Your task to perform on an android device: clear all cookies in the chrome app Image 0: 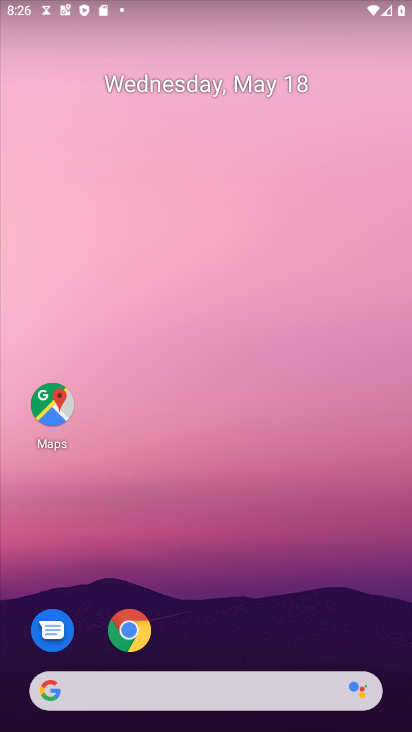
Step 0: click (135, 632)
Your task to perform on an android device: clear all cookies in the chrome app Image 1: 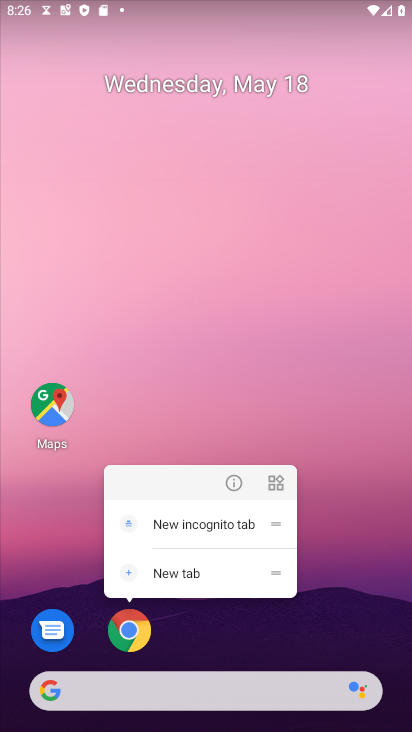
Step 1: click (145, 640)
Your task to perform on an android device: clear all cookies in the chrome app Image 2: 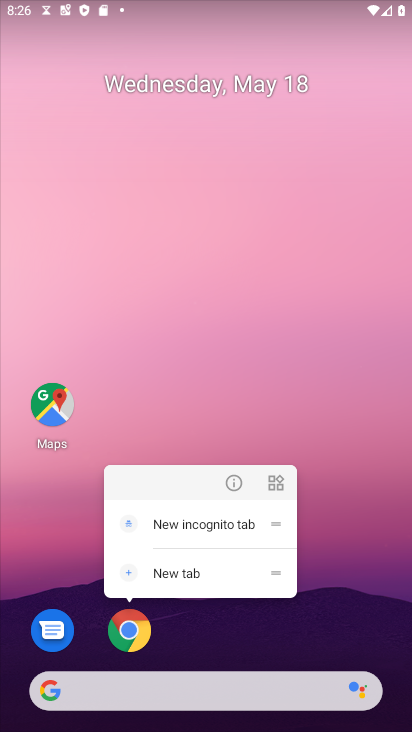
Step 2: click (133, 639)
Your task to perform on an android device: clear all cookies in the chrome app Image 3: 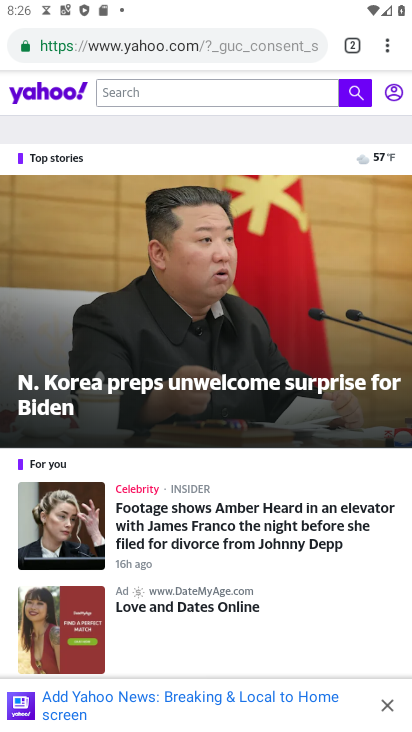
Step 3: drag from (387, 47) to (245, 547)
Your task to perform on an android device: clear all cookies in the chrome app Image 4: 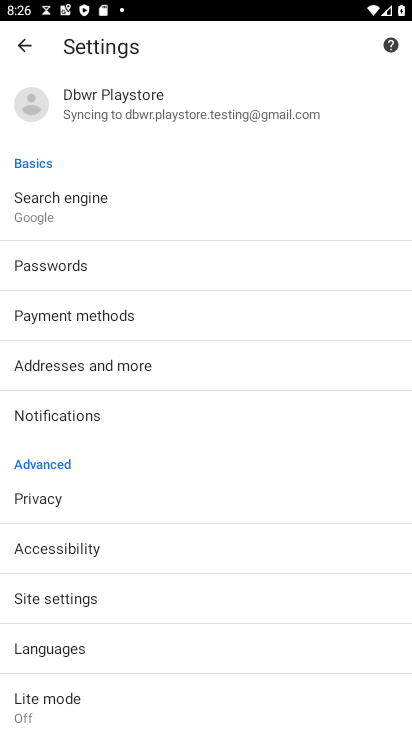
Step 4: click (53, 495)
Your task to perform on an android device: clear all cookies in the chrome app Image 5: 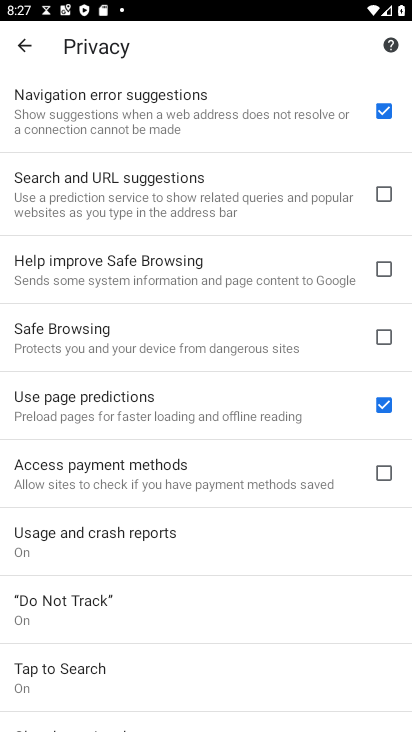
Step 5: drag from (152, 623) to (311, 92)
Your task to perform on an android device: clear all cookies in the chrome app Image 6: 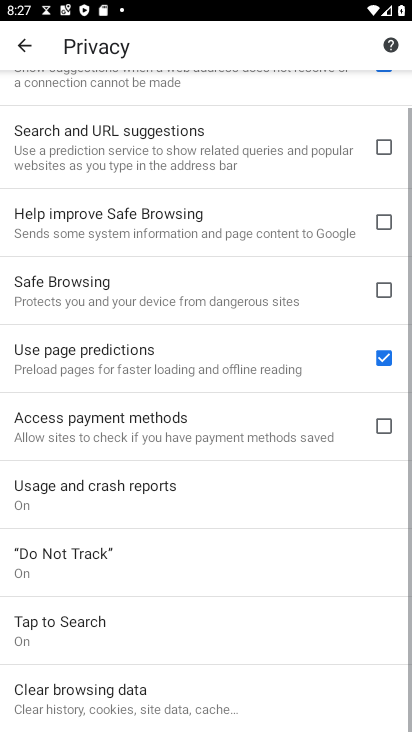
Step 6: drag from (243, 633) to (361, 95)
Your task to perform on an android device: clear all cookies in the chrome app Image 7: 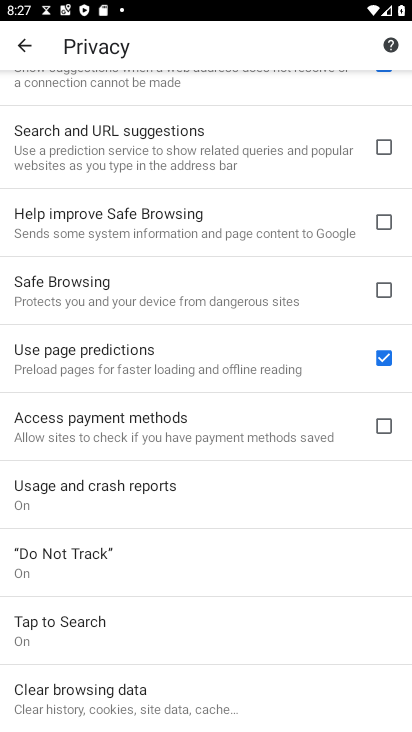
Step 7: click (167, 702)
Your task to perform on an android device: clear all cookies in the chrome app Image 8: 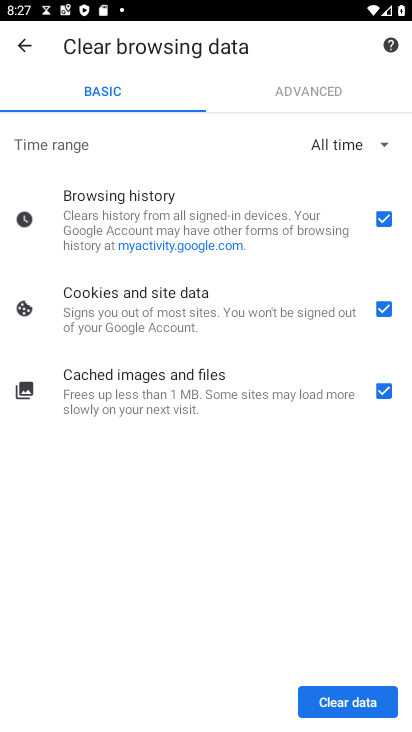
Step 8: click (389, 218)
Your task to perform on an android device: clear all cookies in the chrome app Image 9: 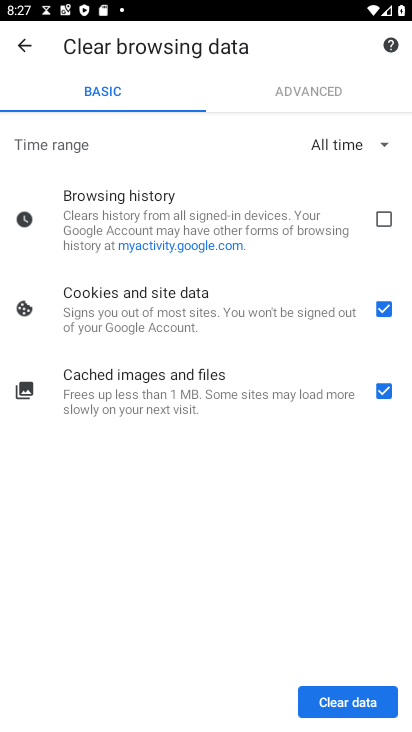
Step 9: click (384, 395)
Your task to perform on an android device: clear all cookies in the chrome app Image 10: 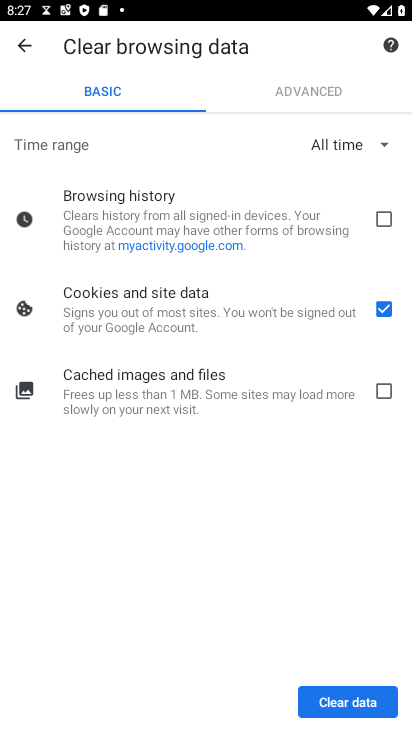
Step 10: click (349, 710)
Your task to perform on an android device: clear all cookies in the chrome app Image 11: 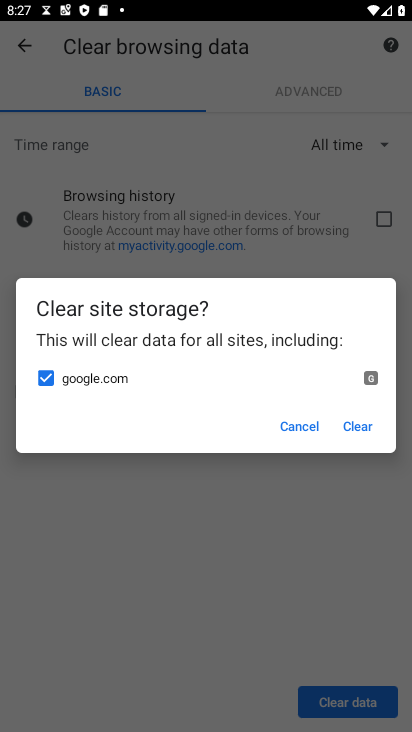
Step 11: click (362, 426)
Your task to perform on an android device: clear all cookies in the chrome app Image 12: 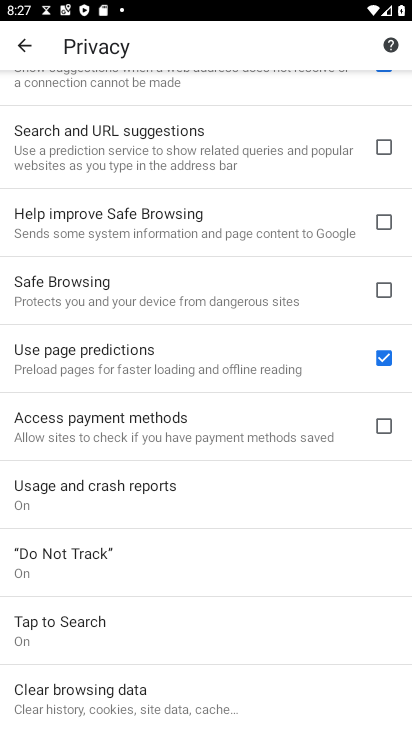
Step 12: task complete